Your task to perform on an android device: Do I have any events tomorrow? Image 0: 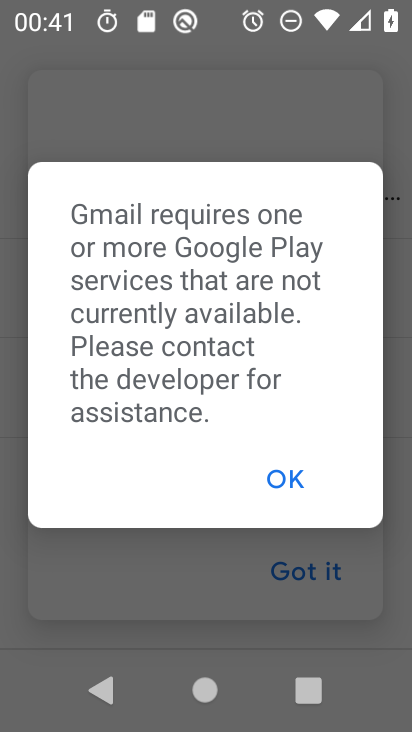
Step 0: press home button
Your task to perform on an android device: Do I have any events tomorrow? Image 1: 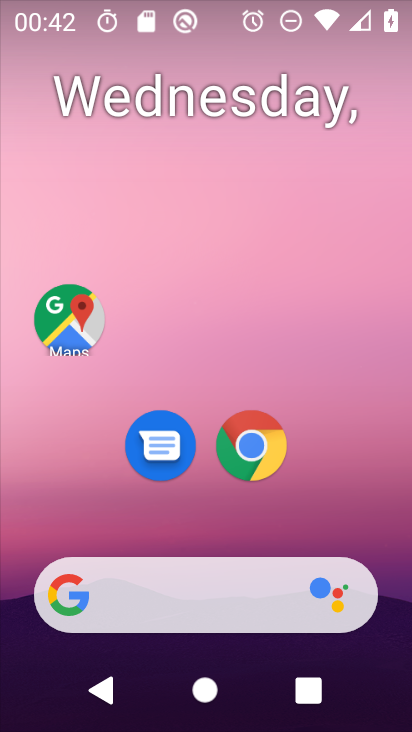
Step 1: drag from (324, 487) to (400, 42)
Your task to perform on an android device: Do I have any events tomorrow? Image 2: 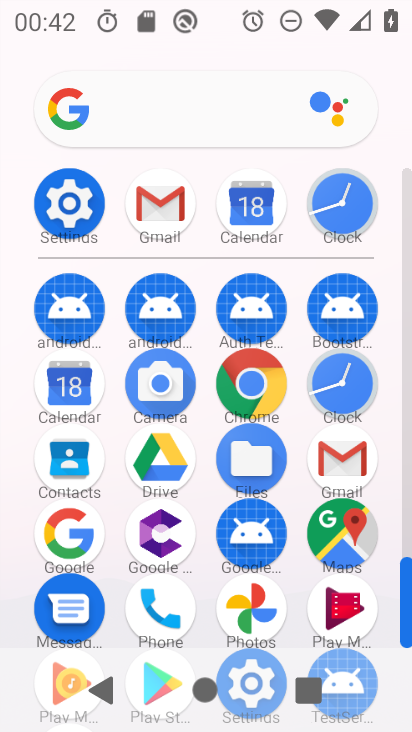
Step 2: click (80, 395)
Your task to perform on an android device: Do I have any events tomorrow? Image 3: 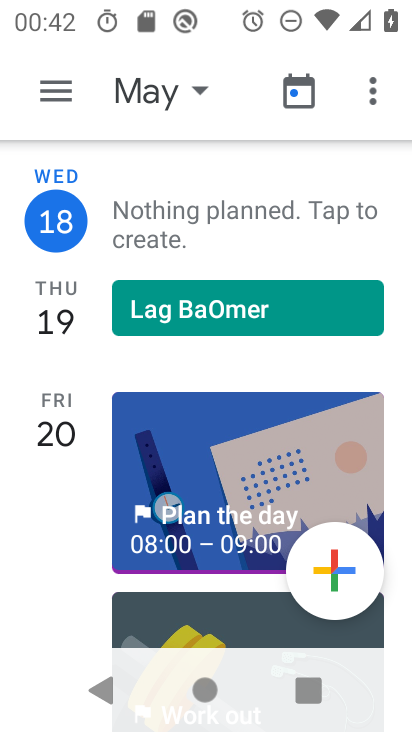
Step 3: click (179, 92)
Your task to perform on an android device: Do I have any events tomorrow? Image 4: 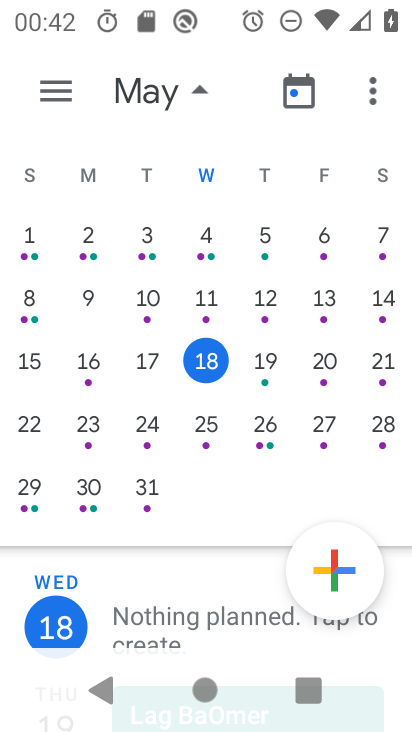
Step 4: click (255, 374)
Your task to perform on an android device: Do I have any events tomorrow? Image 5: 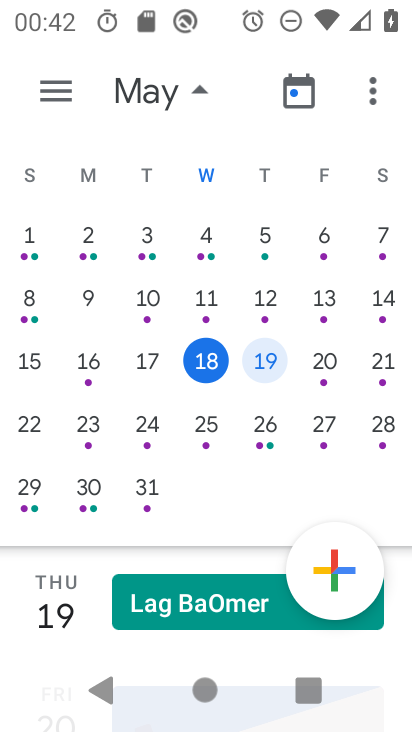
Step 5: task complete